Your task to perform on an android device: toggle notification dots Image 0: 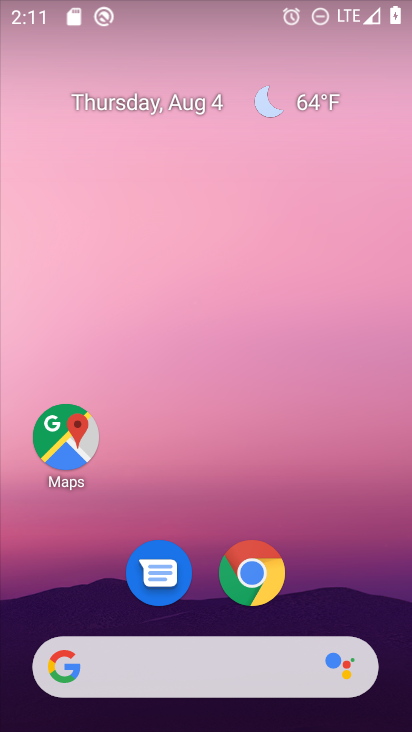
Step 0: drag from (308, 561) to (327, 196)
Your task to perform on an android device: toggle notification dots Image 1: 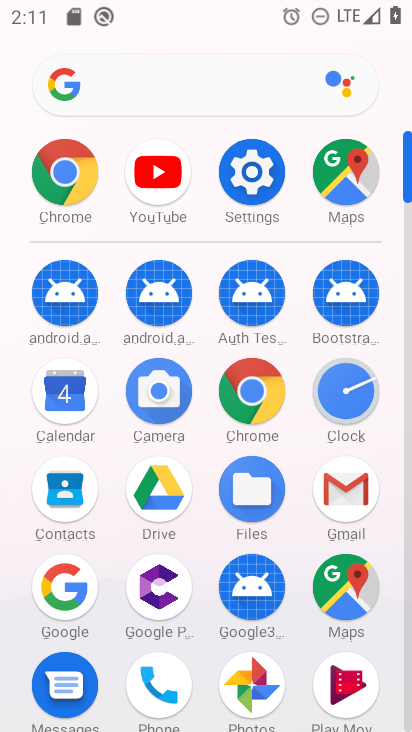
Step 1: click (246, 163)
Your task to perform on an android device: toggle notification dots Image 2: 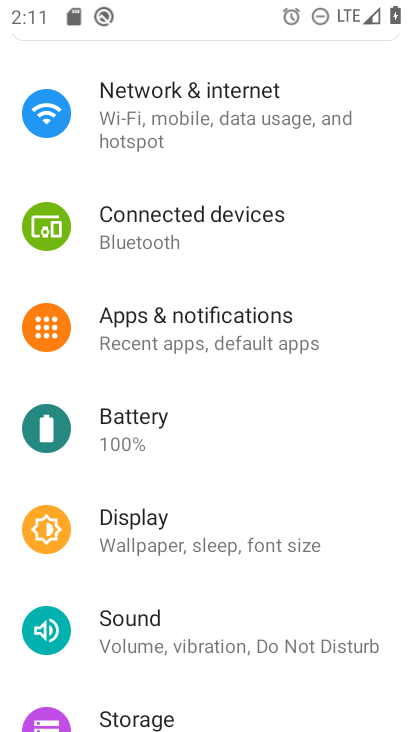
Step 2: click (260, 337)
Your task to perform on an android device: toggle notification dots Image 3: 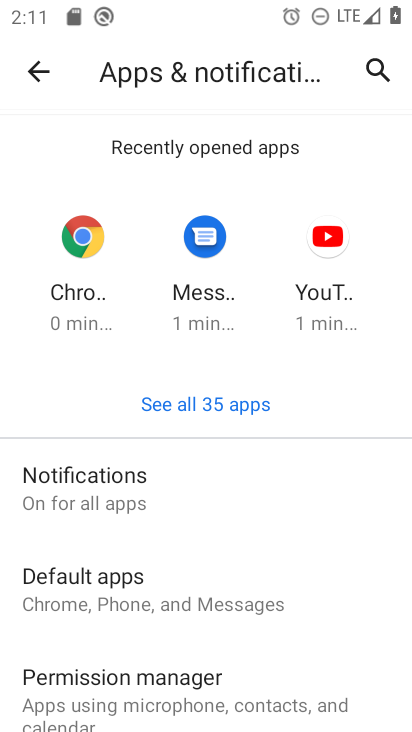
Step 3: click (105, 499)
Your task to perform on an android device: toggle notification dots Image 4: 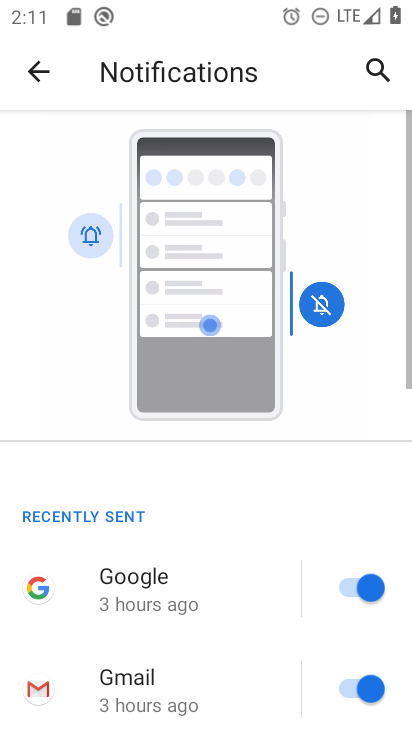
Step 4: drag from (183, 583) to (274, 148)
Your task to perform on an android device: toggle notification dots Image 5: 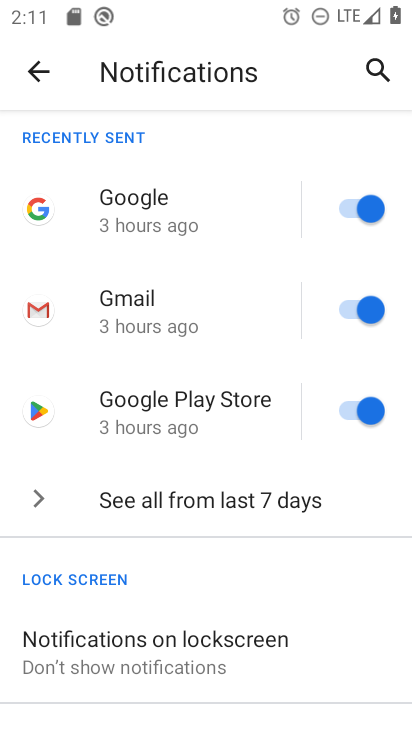
Step 5: drag from (321, 659) to (292, 349)
Your task to perform on an android device: toggle notification dots Image 6: 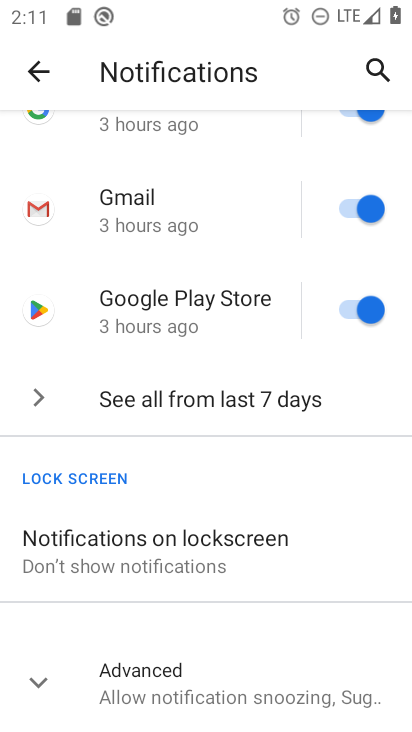
Step 6: click (89, 690)
Your task to perform on an android device: toggle notification dots Image 7: 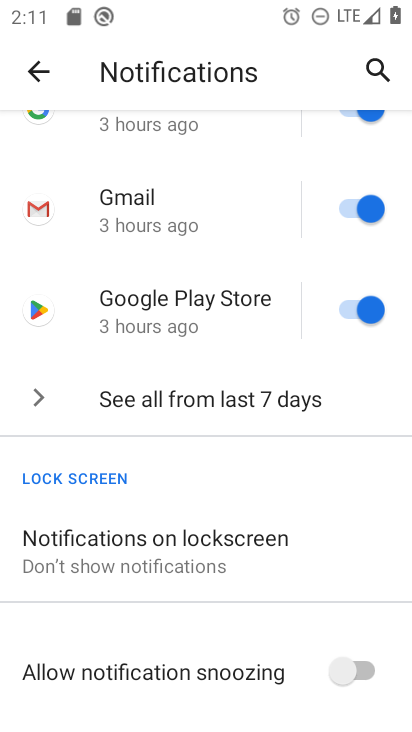
Step 7: drag from (345, 556) to (363, 254)
Your task to perform on an android device: toggle notification dots Image 8: 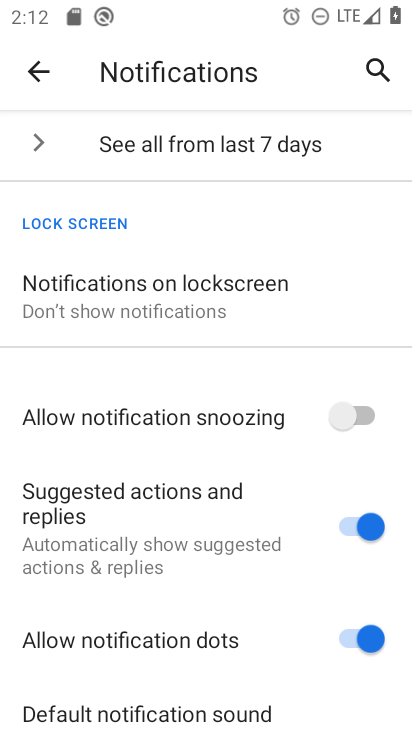
Step 8: click (360, 614)
Your task to perform on an android device: toggle notification dots Image 9: 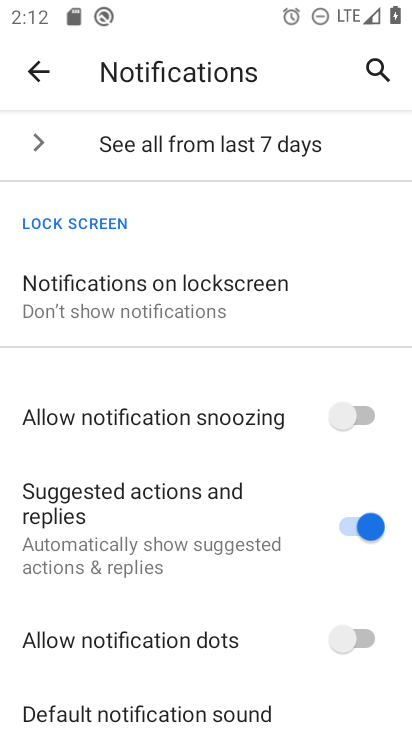
Step 9: task complete